Your task to perform on an android device: Open notification settings Image 0: 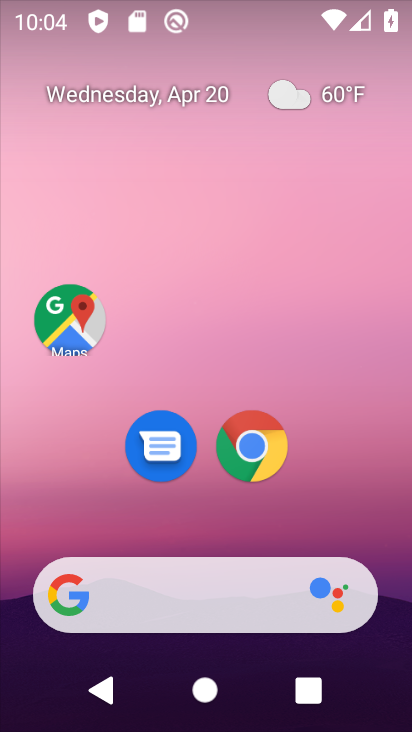
Step 0: drag from (405, 624) to (254, 27)
Your task to perform on an android device: Open notification settings Image 1: 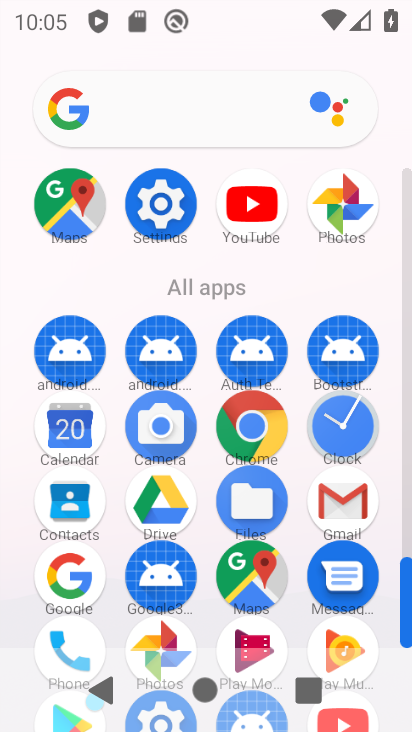
Step 1: drag from (13, 538) to (12, 271)
Your task to perform on an android device: Open notification settings Image 2: 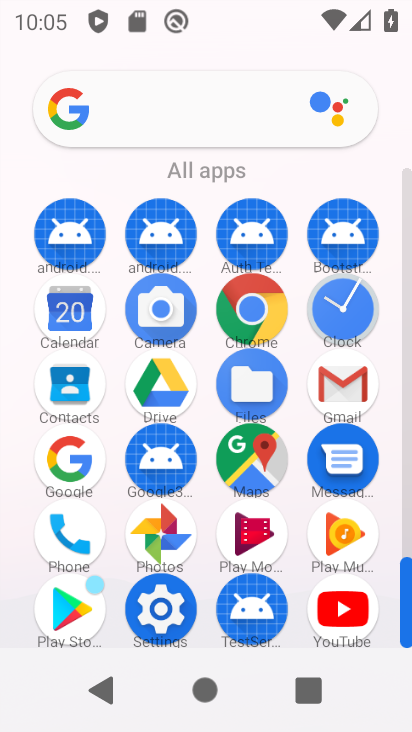
Step 2: drag from (21, 482) to (20, 285)
Your task to perform on an android device: Open notification settings Image 3: 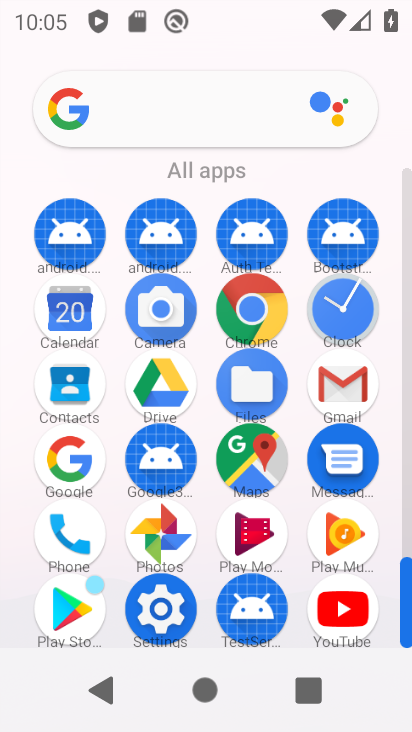
Step 3: click (157, 602)
Your task to perform on an android device: Open notification settings Image 4: 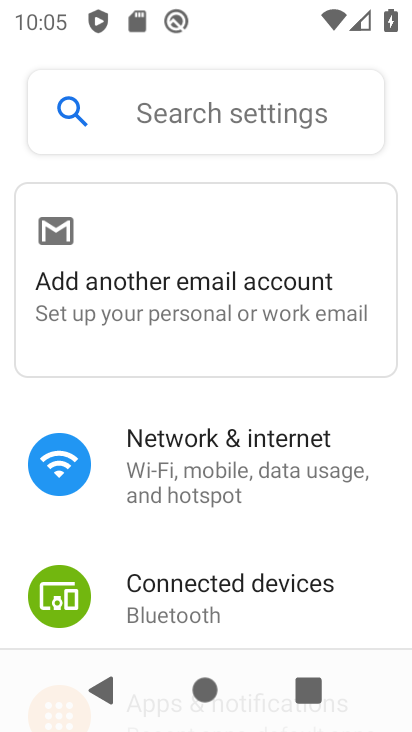
Step 4: drag from (252, 556) to (237, 133)
Your task to perform on an android device: Open notification settings Image 5: 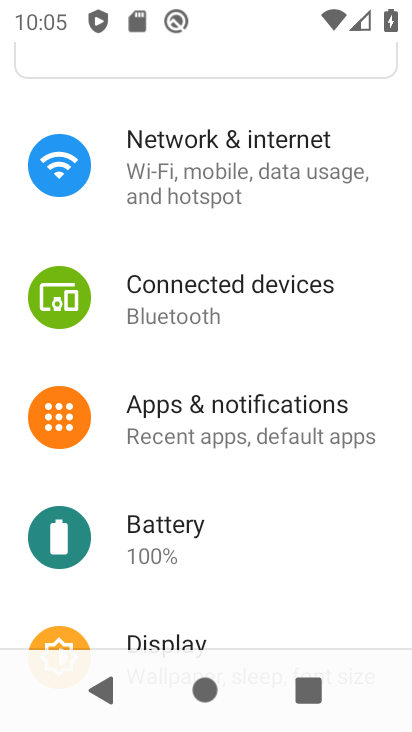
Step 5: click (268, 441)
Your task to perform on an android device: Open notification settings Image 6: 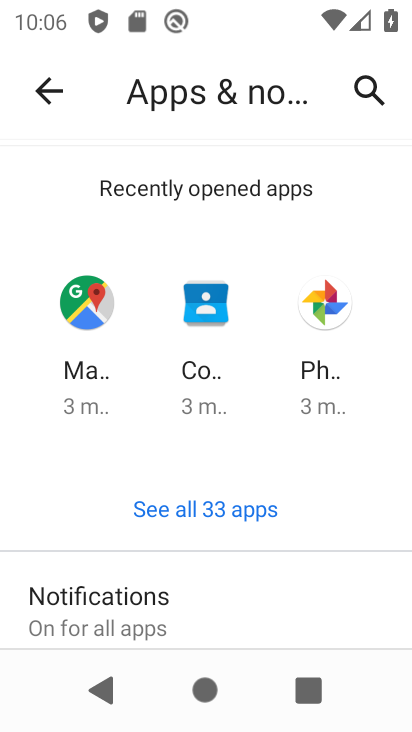
Step 6: drag from (301, 595) to (236, 205)
Your task to perform on an android device: Open notification settings Image 7: 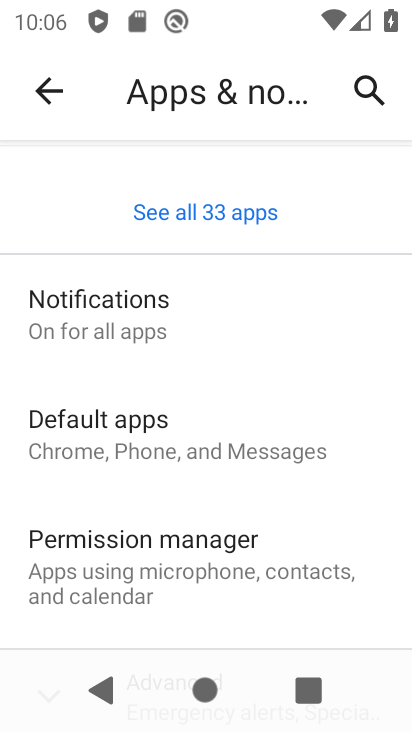
Step 7: drag from (228, 525) to (228, 148)
Your task to perform on an android device: Open notification settings Image 8: 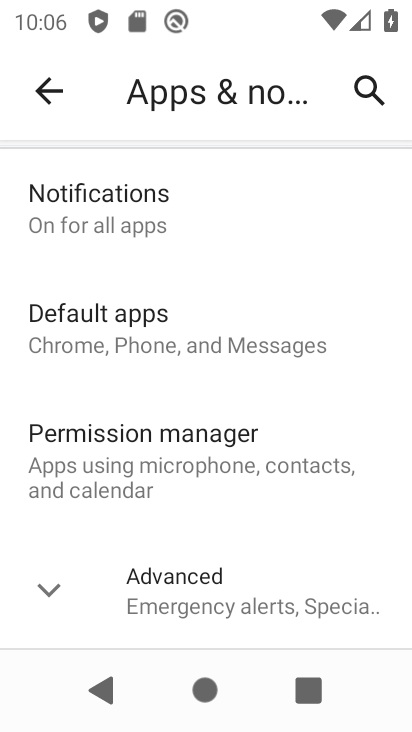
Step 8: click (59, 591)
Your task to perform on an android device: Open notification settings Image 9: 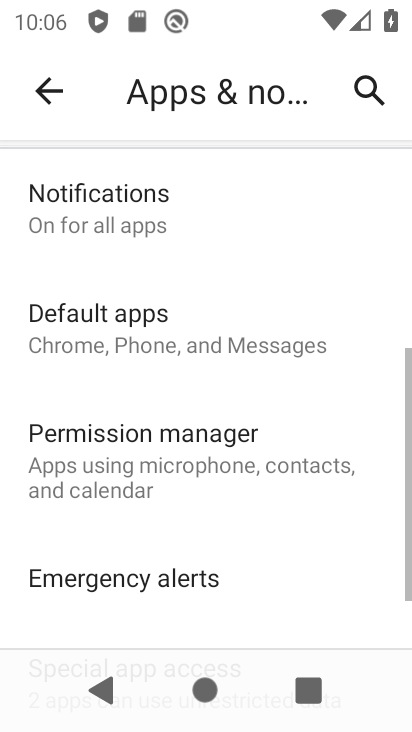
Step 9: drag from (216, 557) to (219, 252)
Your task to perform on an android device: Open notification settings Image 10: 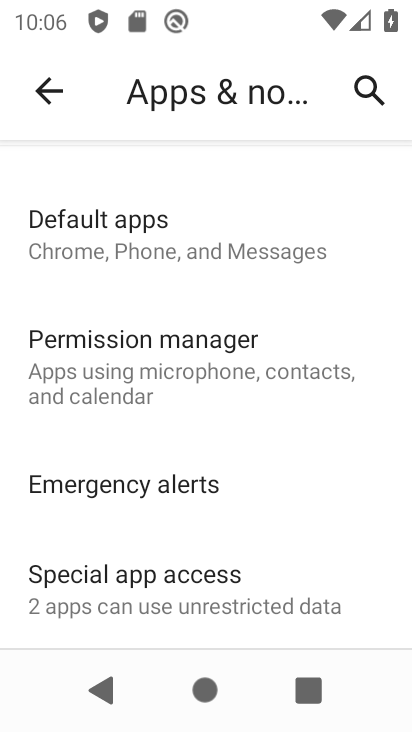
Step 10: drag from (257, 194) to (287, 564)
Your task to perform on an android device: Open notification settings Image 11: 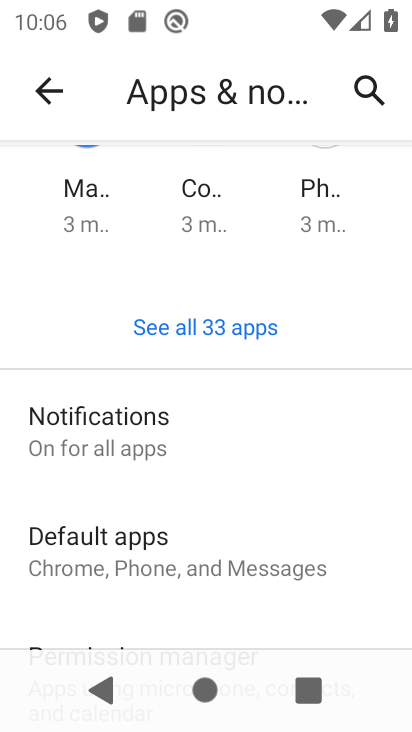
Step 11: drag from (269, 532) to (278, 258)
Your task to perform on an android device: Open notification settings Image 12: 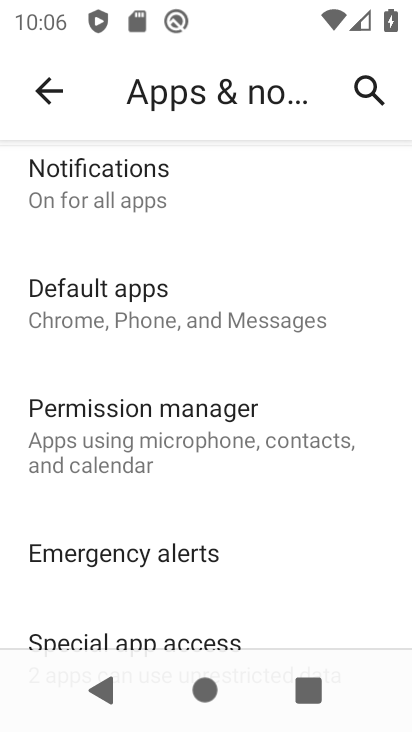
Step 12: click (168, 191)
Your task to perform on an android device: Open notification settings Image 13: 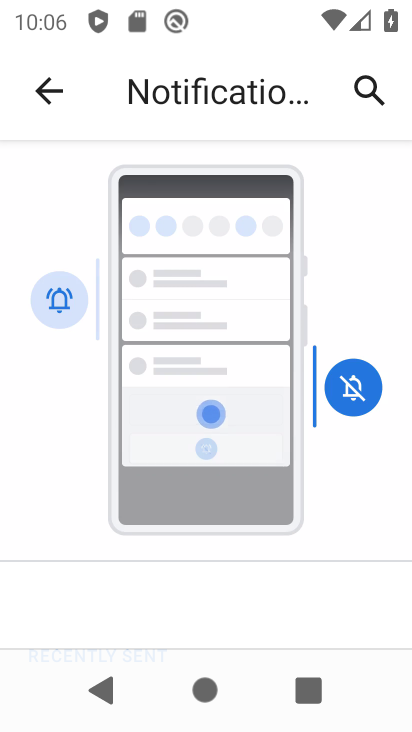
Step 13: task complete